Your task to perform on an android device: Open Yahoo.com Image 0: 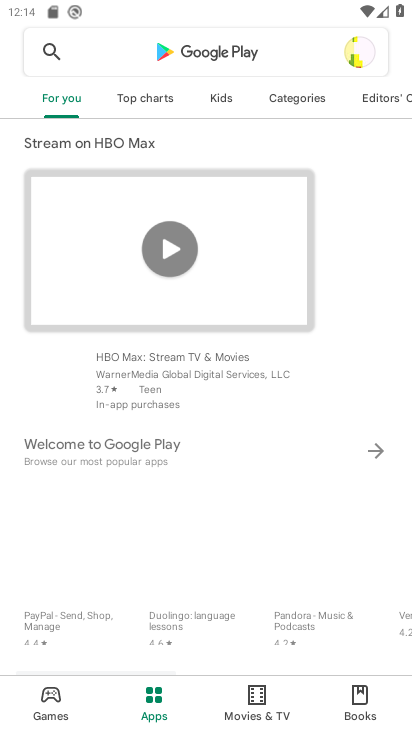
Step 0: press home button
Your task to perform on an android device: Open Yahoo.com Image 1: 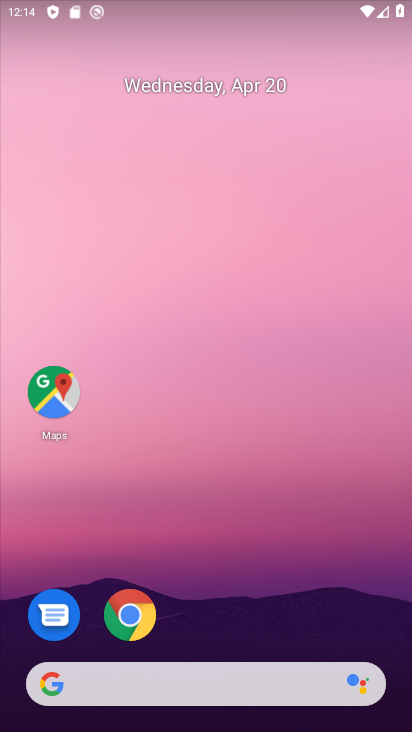
Step 1: drag from (226, 581) to (279, 51)
Your task to perform on an android device: Open Yahoo.com Image 2: 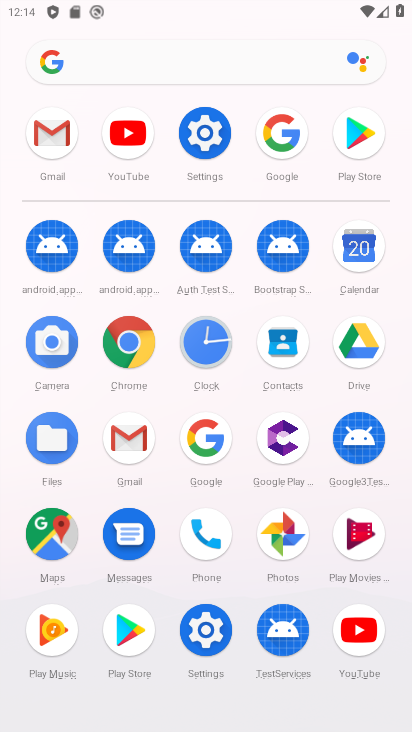
Step 2: click (125, 342)
Your task to perform on an android device: Open Yahoo.com Image 3: 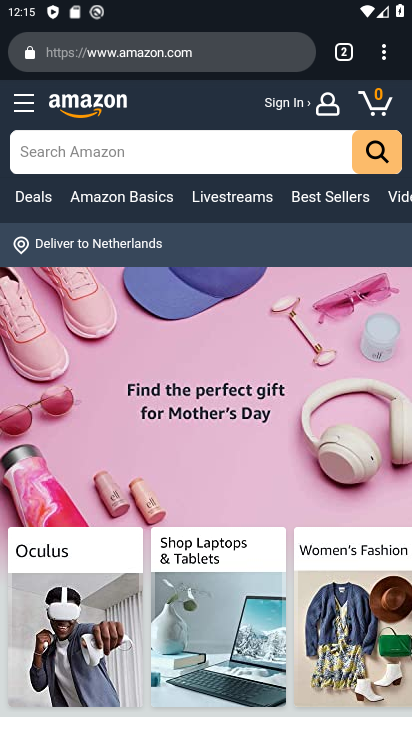
Step 3: press back button
Your task to perform on an android device: Open Yahoo.com Image 4: 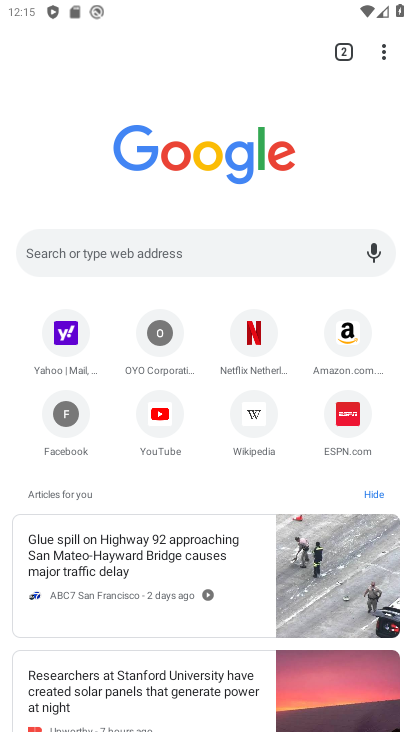
Step 4: click (67, 333)
Your task to perform on an android device: Open Yahoo.com Image 5: 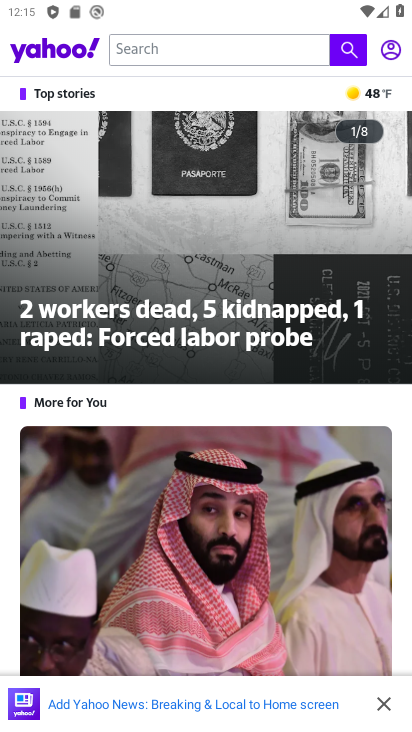
Step 5: task complete